Your task to perform on an android device: Open internet settings Image 0: 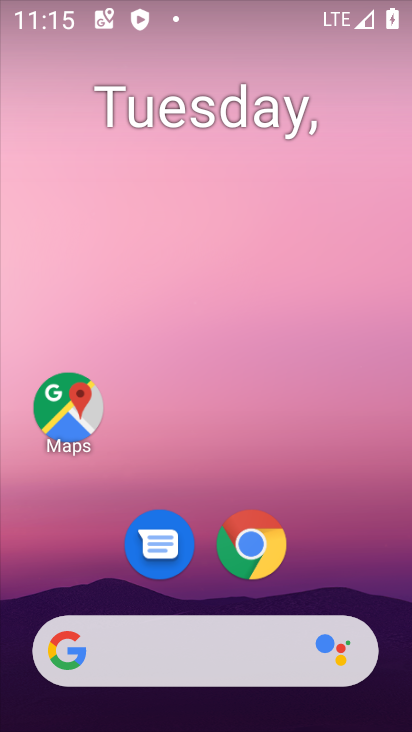
Step 0: drag from (390, 624) to (301, 139)
Your task to perform on an android device: Open internet settings Image 1: 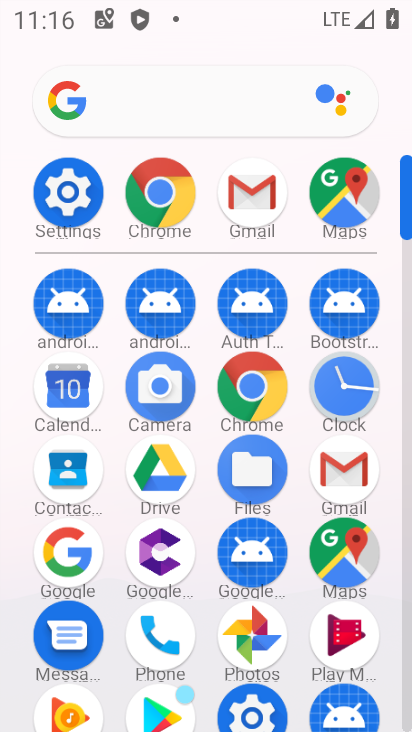
Step 1: click (72, 209)
Your task to perform on an android device: Open internet settings Image 2: 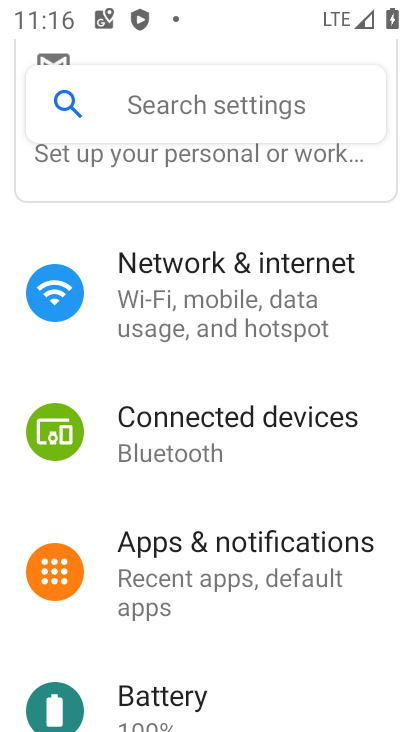
Step 2: click (233, 289)
Your task to perform on an android device: Open internet settings Image 3: 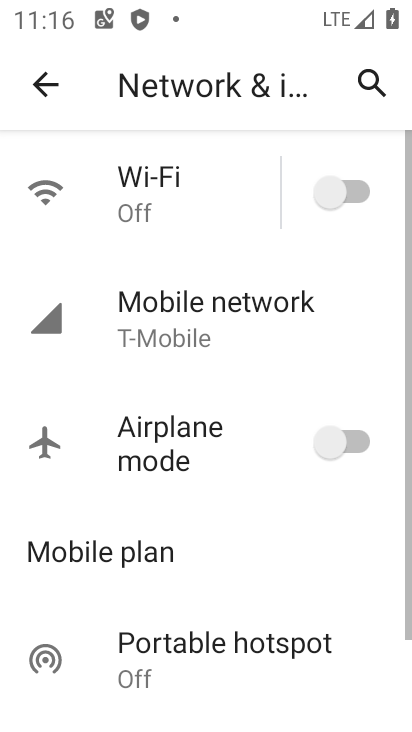
Step 3: task complete